Your task to perform on an android device: turn off priority inbox in the gmail app Image 0: 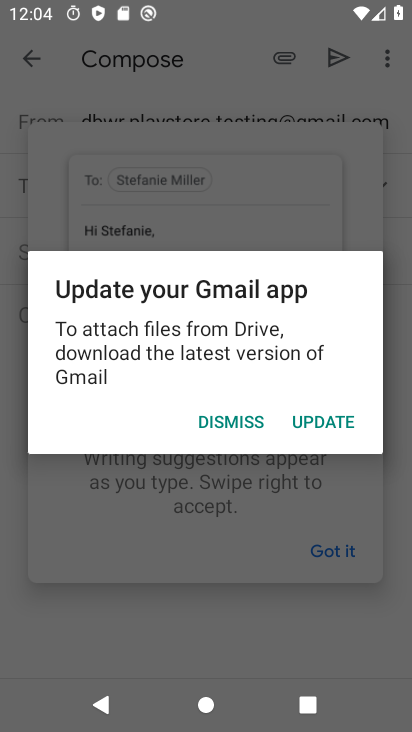
Step 0: press home button
Your task to perform on an android device: turn off priority inbox in the gmail app Image 1: 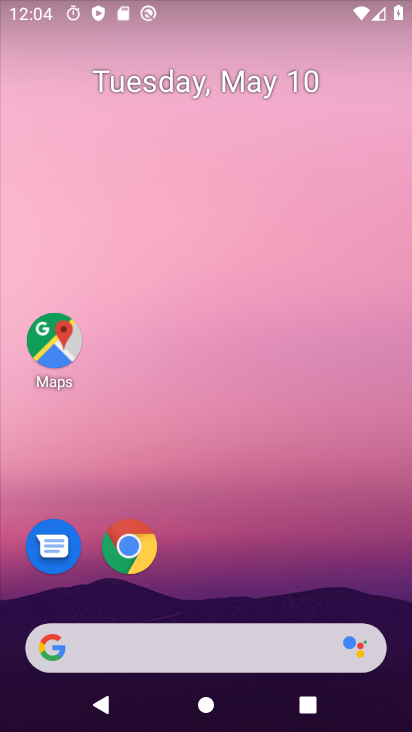
Step 1: click (228, 32)
Your task to perform on an android device: turn off priority inbox in the gmail app Image 2: 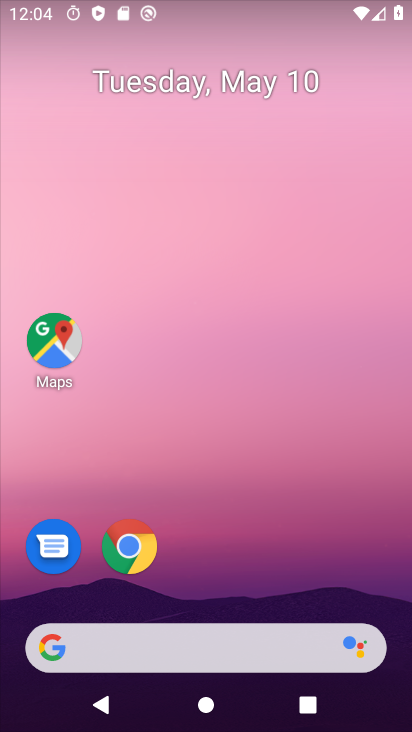
Step 2: drag from (318, 562) to (308, 22)
Your task to perform on an android device: turn off priority inbox in the gmail app Image 3: 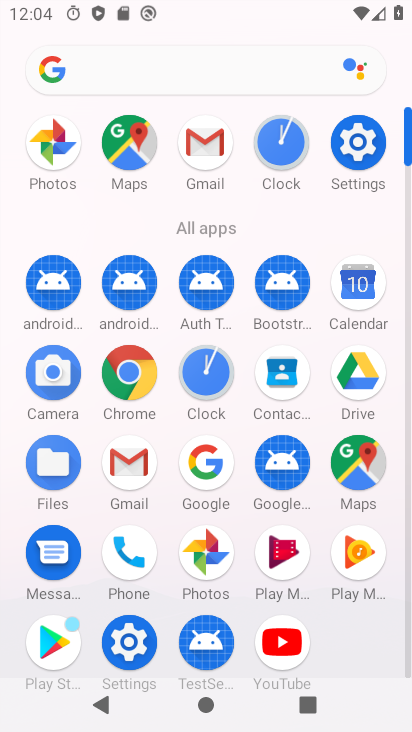
Step 3: click (153, 474)
Your task to perform on an android device: turn off priority inbox in the gmail app Image 4: 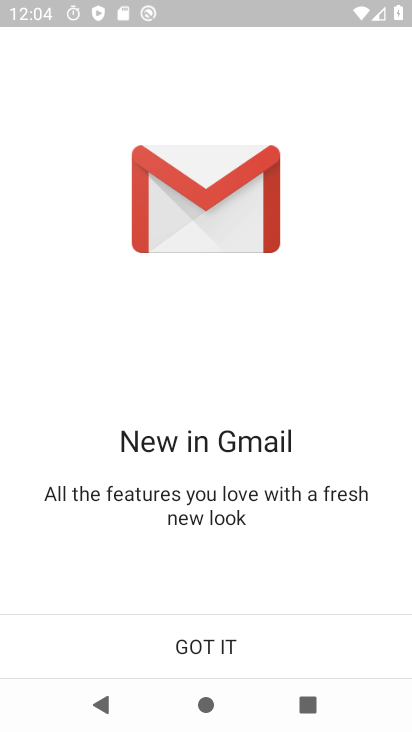
Step 4: click (194, 659)
Your task to perform on an android device: turn off priority inbox in the gmail app Image 5: 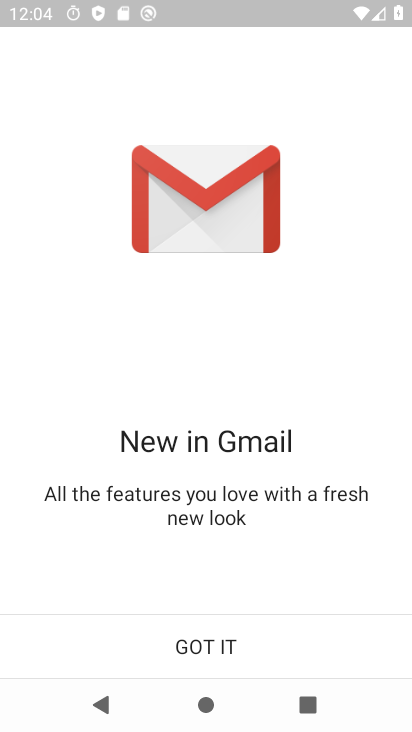
Step 5: click (194, 659)
Your task to perform on an android device: turn off priority inbox in the gmail app Image 6: 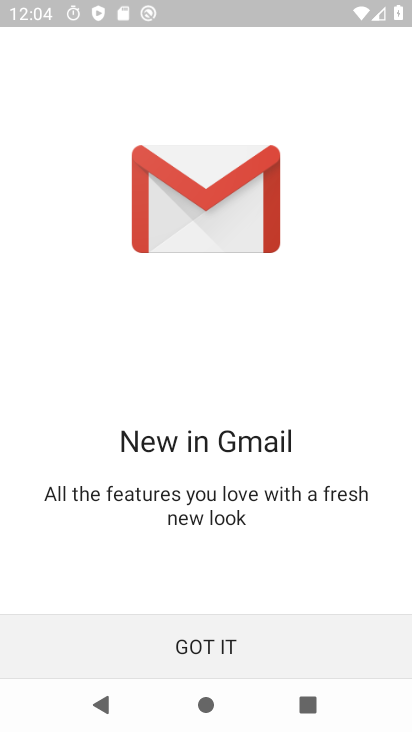
Step 6: click (194, 659)
Your task to perform on an android device: turn off priority inbox in the gmail app Image 7: 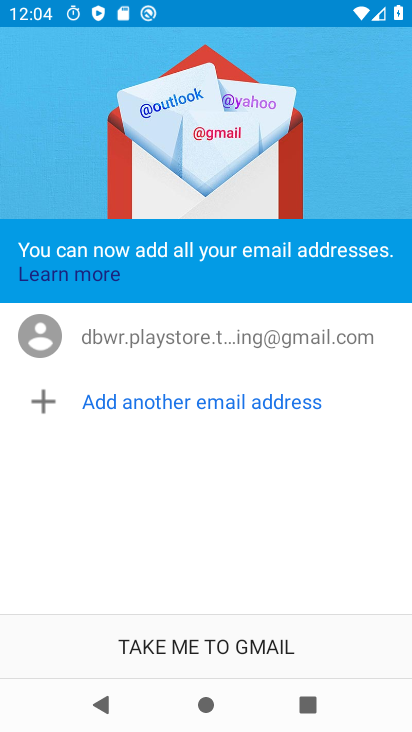
Step 7: click (194, 659)
Your task to perform on an android device: turn off priority inbox in the gmail app Image 8: 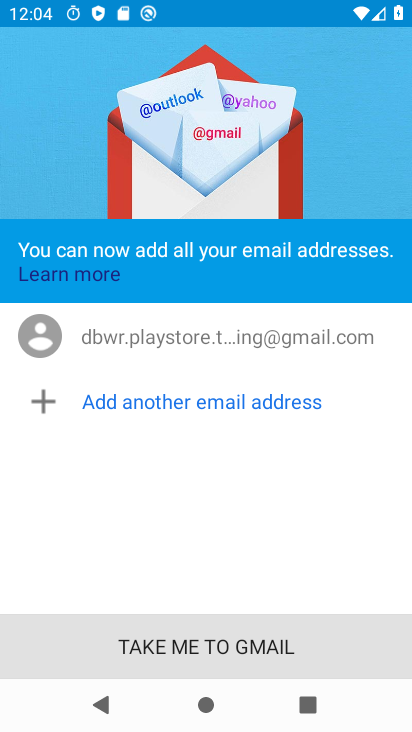
Step 8: click (194, 659)
Your task to perform on an android device: turn off priority inbox in the gmail app Image 9: 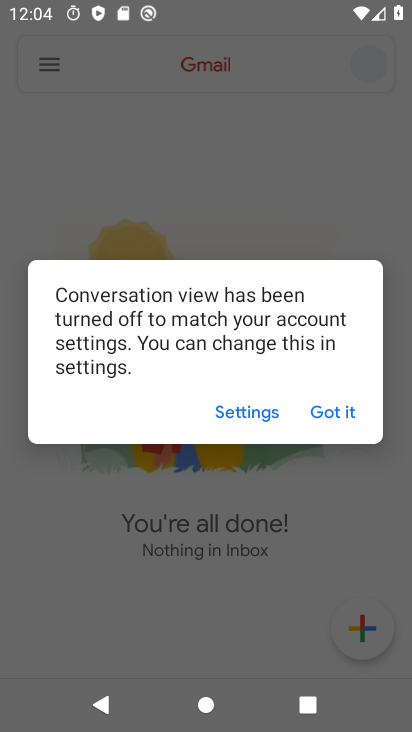
Step 9: click (341, 414)
Your task to perform on an android device: turn off priority inbox in the gmail app Image 10: 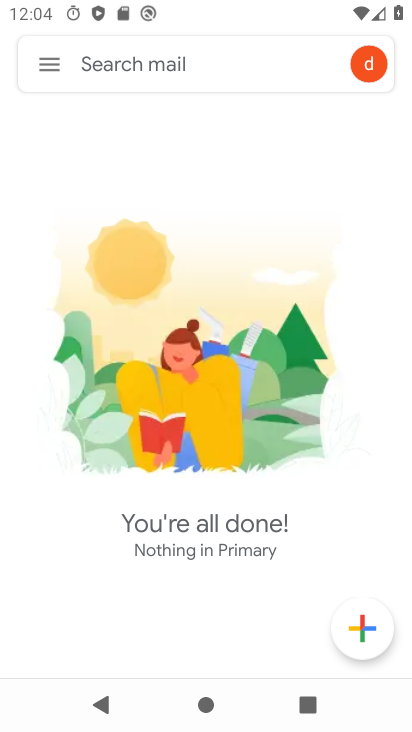
Step 10: click (41, 60)
Your task to perform on an android device: turn off priority inbox in the gmail app Image 11: 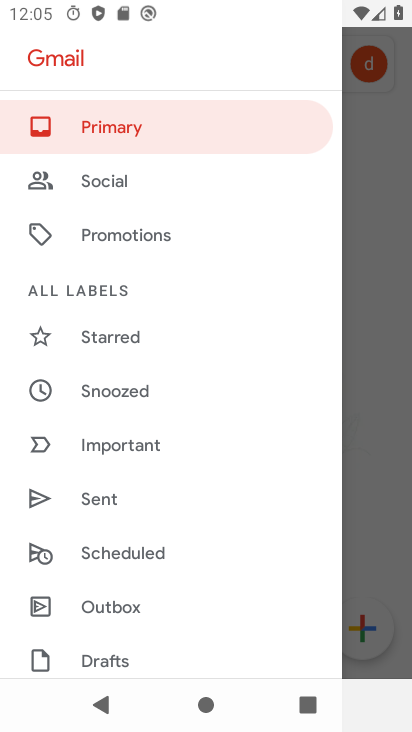
Step 11: drag from (274, 603) to (181, 126)
Your task to perform on an android device: turn off priority inbox in the gmail app Image 12: 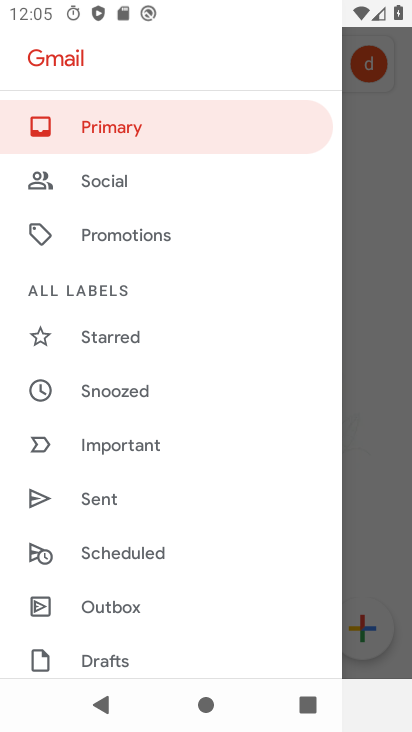
Step 12: drag from (155, 630) to (170, 219)
Your task to perform on an android device: turn off priority inbox in the gmail app Image 13: 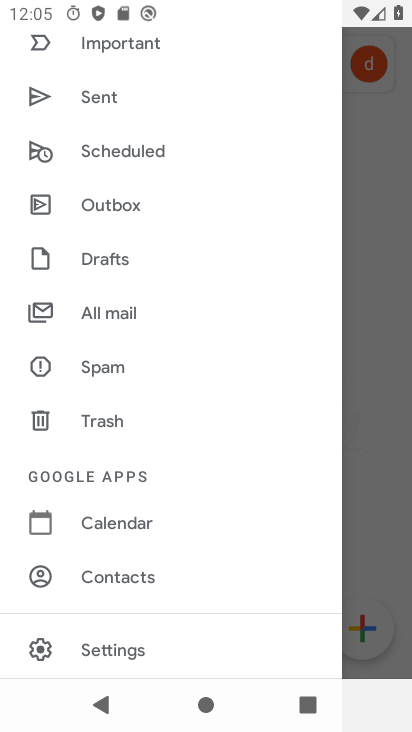
Step 13: click (132, 644)
Your task to perform on an android device: turn off priority inbox in the gmail app Image 14: 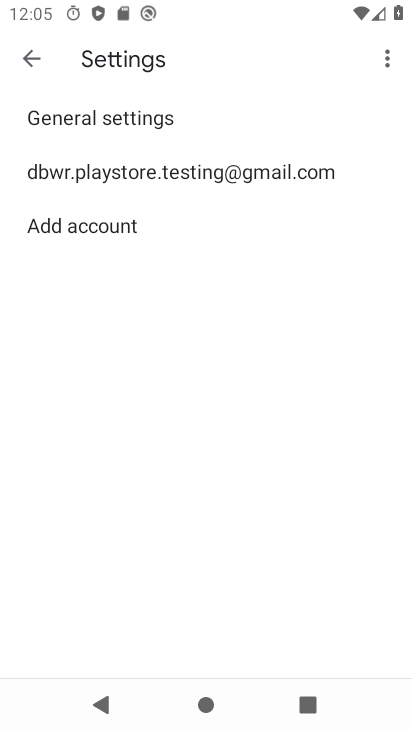
Step 14: click (159, 185)
Your task to perform on an android device: turn off priority inbox in the gmail app Image 15: 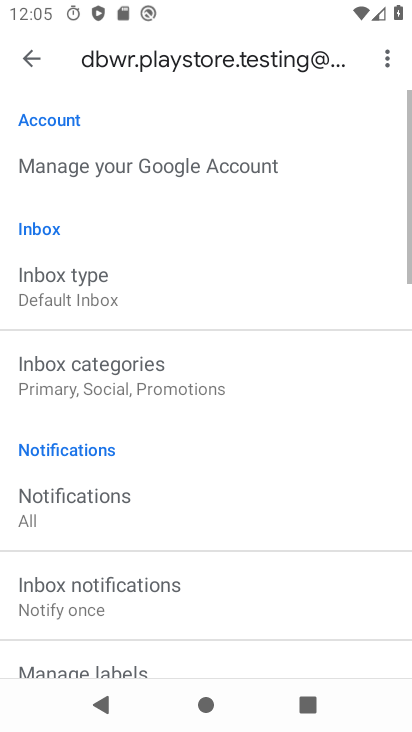
Step 15: click (137, 288)
Your task to perform on an android device: turn off priority inbox in the gmail app Image 16: 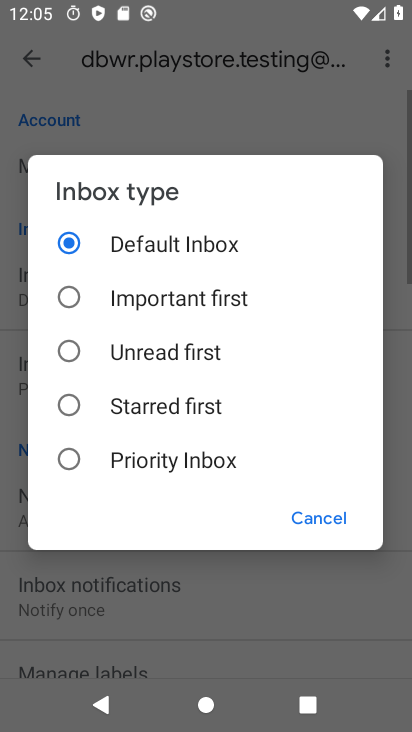
Step 16: click (154, 248)
Your task to perform on an android device: turn off priority inbox in the gmail app Image 17: 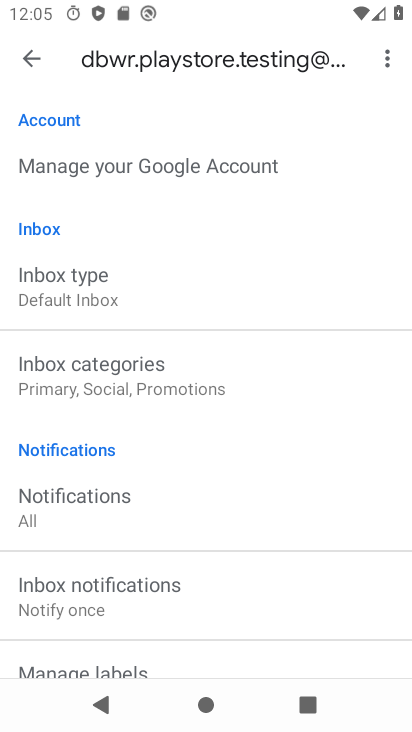
Step 17: task complete